Your task to perform on an android device: What's the weather going to be this weekend? Image 0: 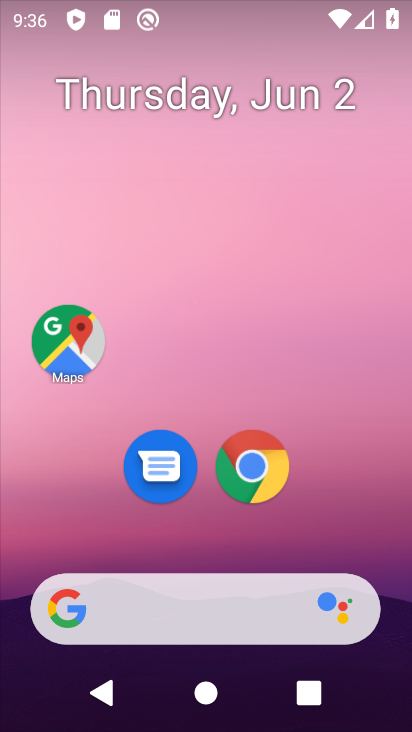
Step 0: click (183, 602)
Your task to perform on an android device: What's the weather going to be this weekend? Image 1: 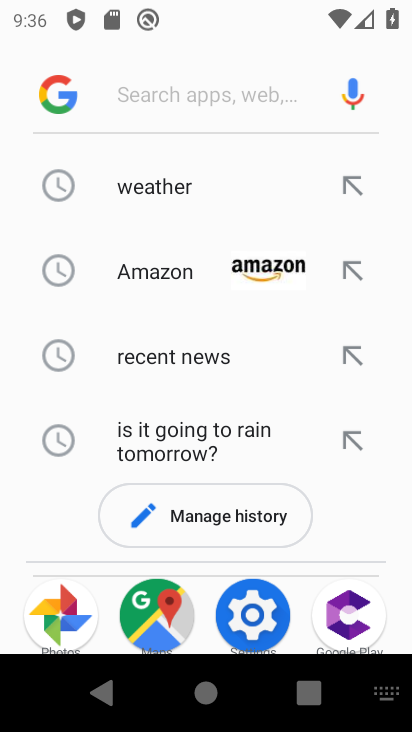
Step 1: click (153, 91)
Your task to perform on an android device: What's the weather going to be this weekend? Image 2: 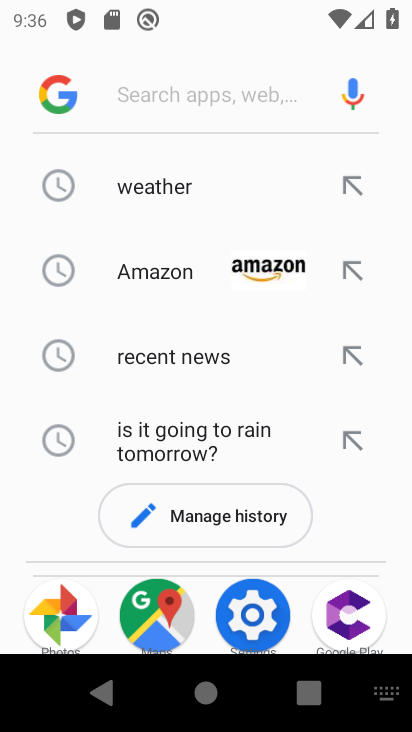
Step 2: type "what's the weather going to be this weekend"
Your task to perform on an android device: What's the weather going to be this weekend? Image 3: 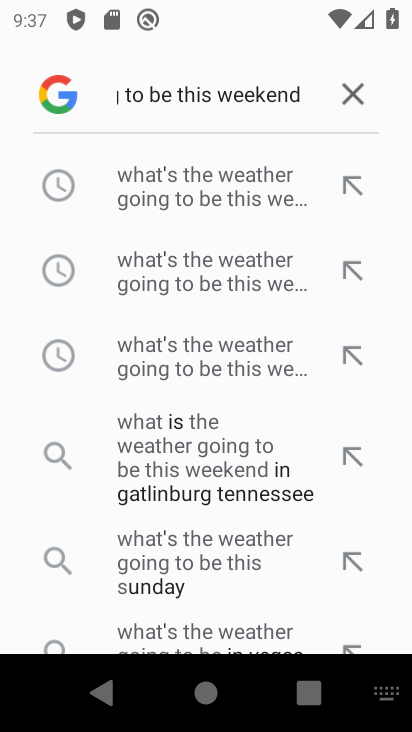
Step 3: click (197, 195)
Your task to perform on an android device: What's the weather going to be this weekend? Image 4: 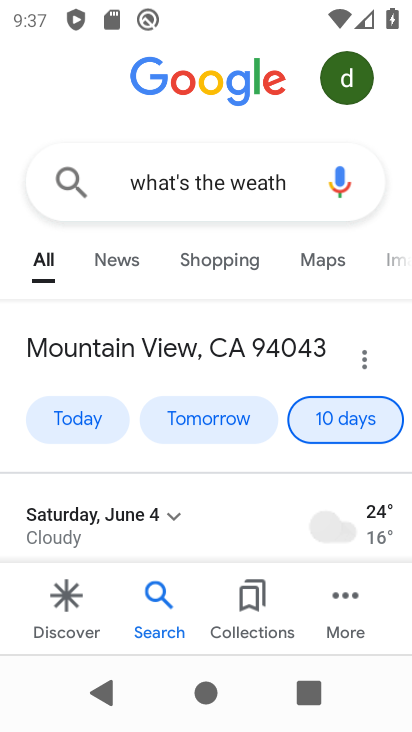
Step 4: task complete